Your task to perform on an android device: What's the weather? Image 0: 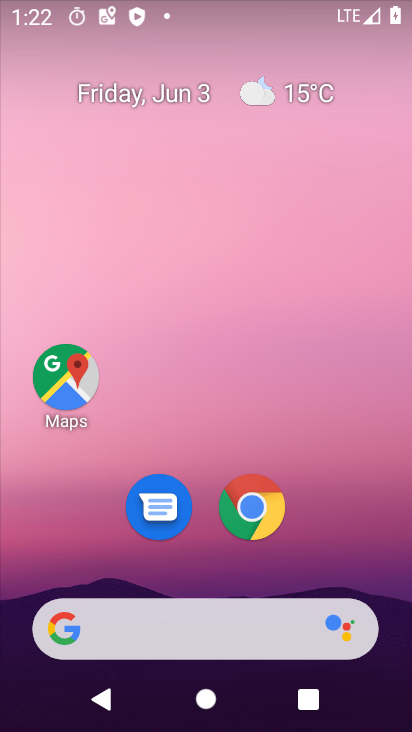
Step 0: drag from (397, 635) to (193, 80)
Your task to perform on an android device: What's the weather? Image 1: 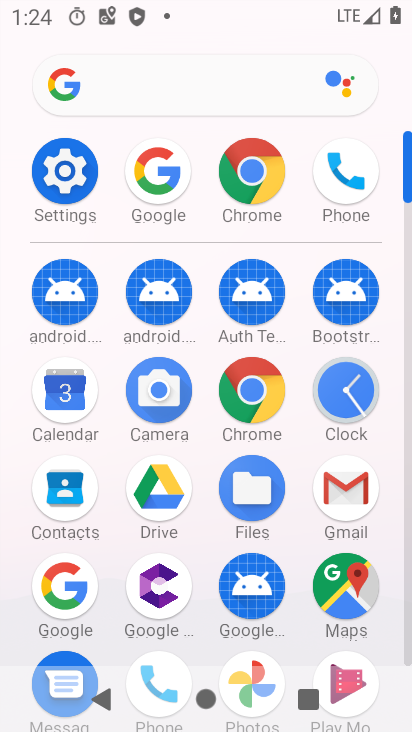
Step 1: click (72, 574)
Your task to perform on an android device: What's the weather? Image 2: 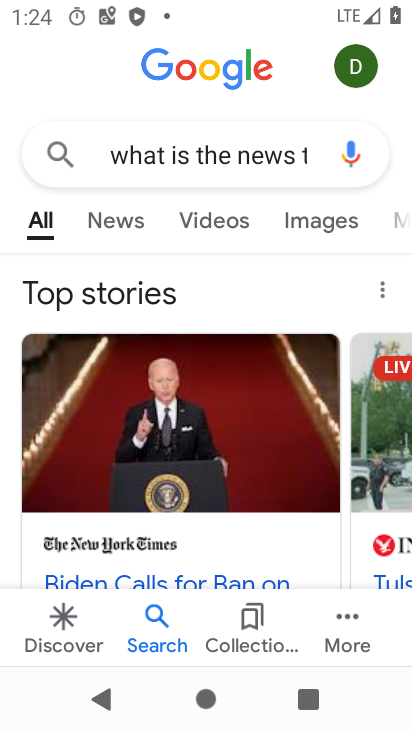
Step 2: press back button
Your task to perform on an android device: What's the weather? Image 3: 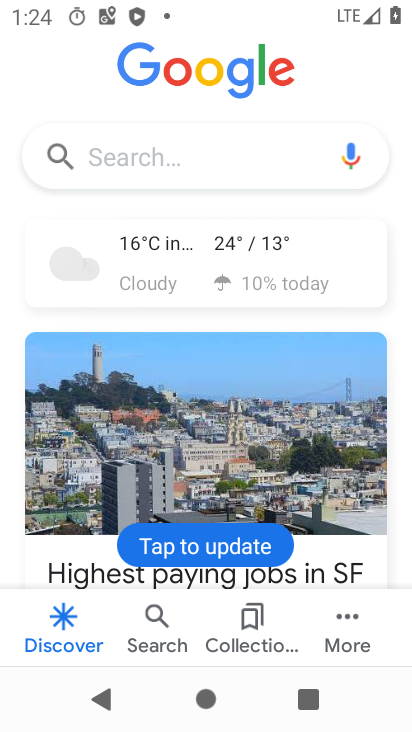
Step 3: click (149, 148)
Your task to perform on an android device: What's the weather? Image 4: 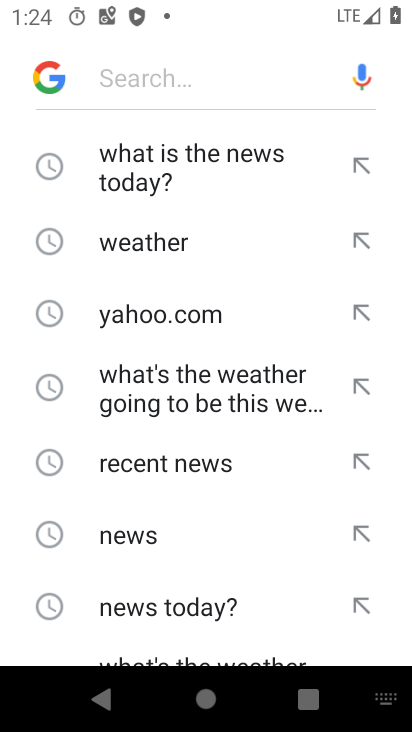
Step 4: click (176, 247)
Your task to perform on an android device: What's the weather? Image 5: 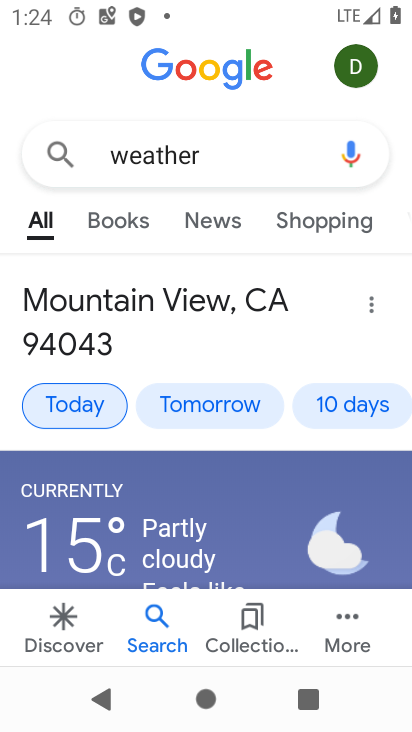
Step 5: task complete